Your task to perform on an android device: open a new tab in the chrome app Image 0: 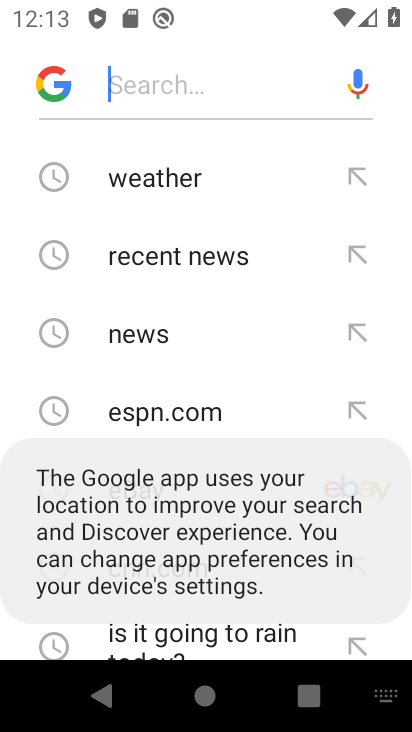
Step 0: press home button
Your task to perform on an android device: open a new tab in the chrome app Image 1: 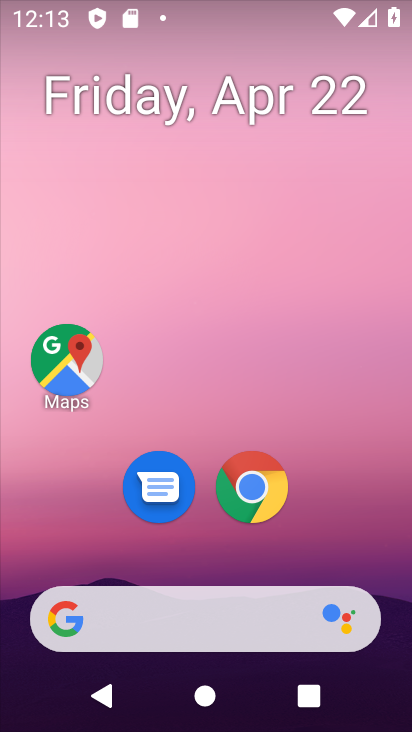
Step 1: click (267, 480)
Your task to perform on an android device: open a new tab in the chrome app Image 2: 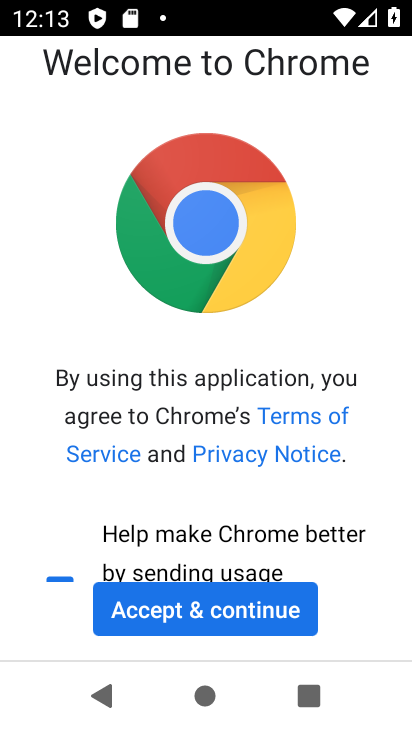
Step 2: click (281, 606)
Your task to perform on an android device: open a new tab in the chrome app Image 3: 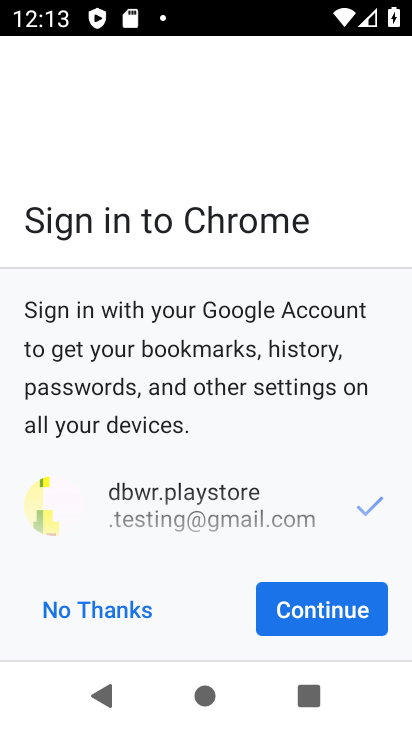
Step 3: click (311, 612)
Your task to perform on an android device: open a new tab in the chrome app Image 4: 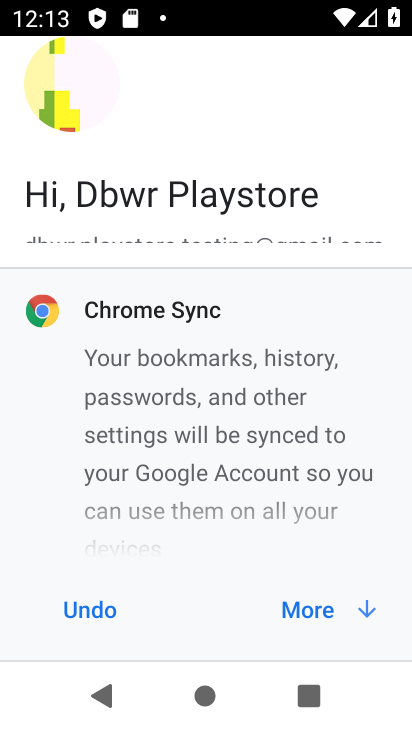
Step 4: click (313, 604)
Your task to perform on an android device: open a new tab in the chrome app Image 5: 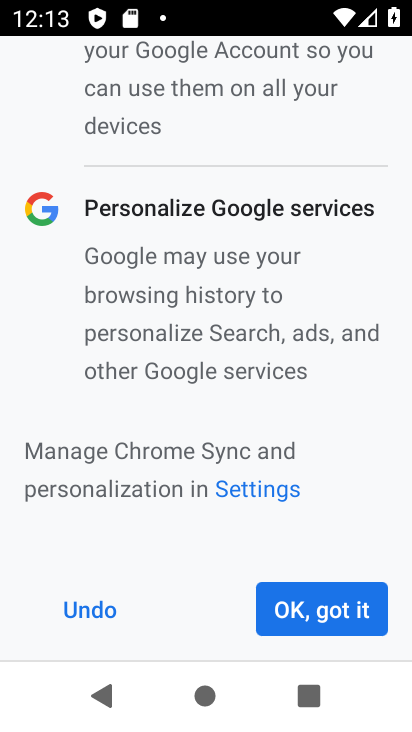
Step 5: click (313, 604)
Your task to perform on an android device: open a new tab in the chrome app Image 6: 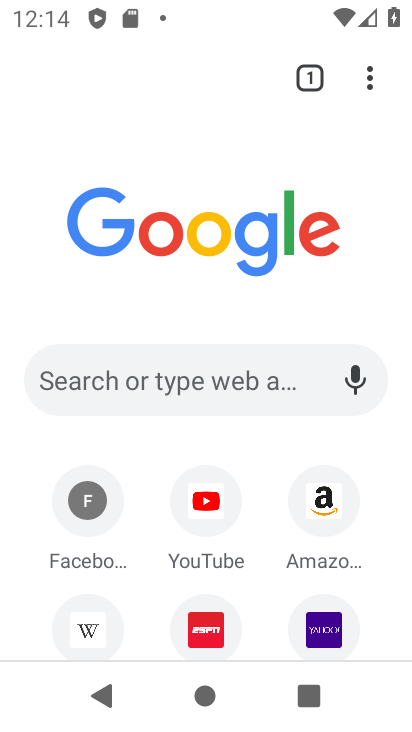
Step 6: task complete